Your task to perform on an android device: manage bookmarks in the chrome app Image 0: 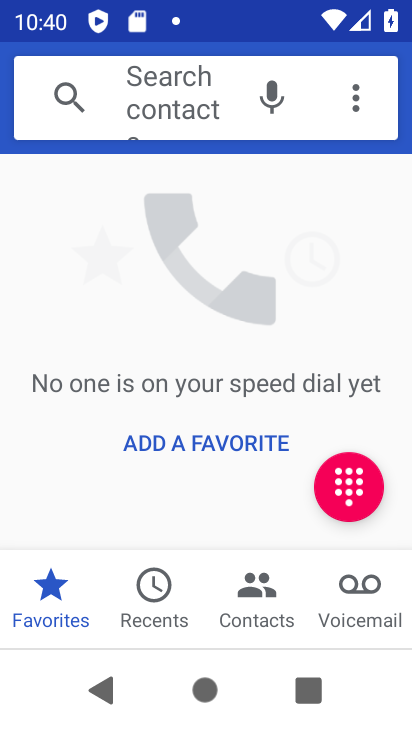
Step 0: press home button
Your task to perform on an android device: manage bookmarks in the chrome app Image 1: 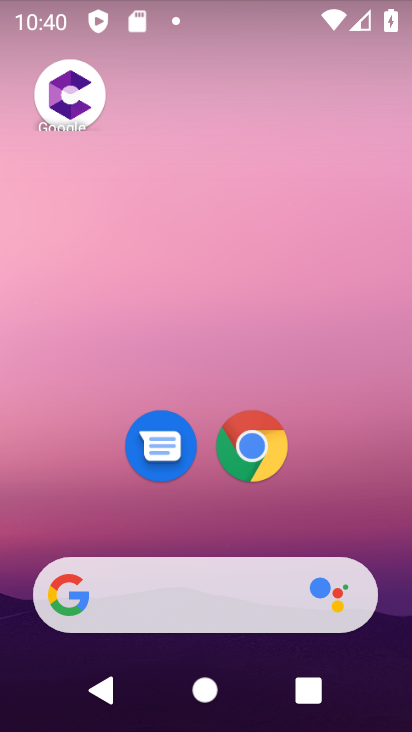
Step 1: click (250, 448)
Your task to perform on an android device: manage bookmarks in the chrome app Image 2: 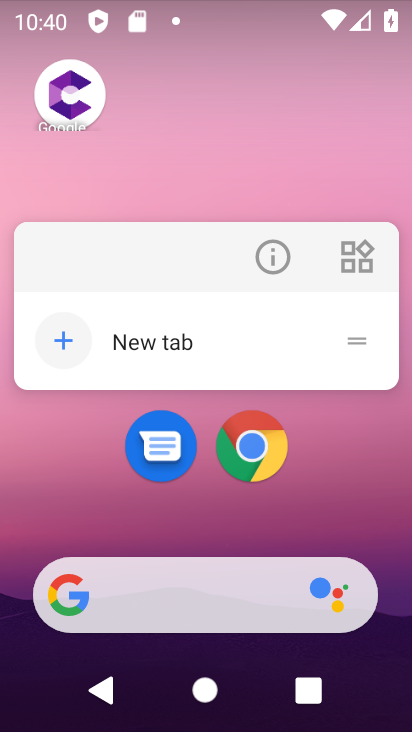
Step 2: click (283, 247)
Your task to perform on an android device: manage bookmarks in the chrome app Image 3: 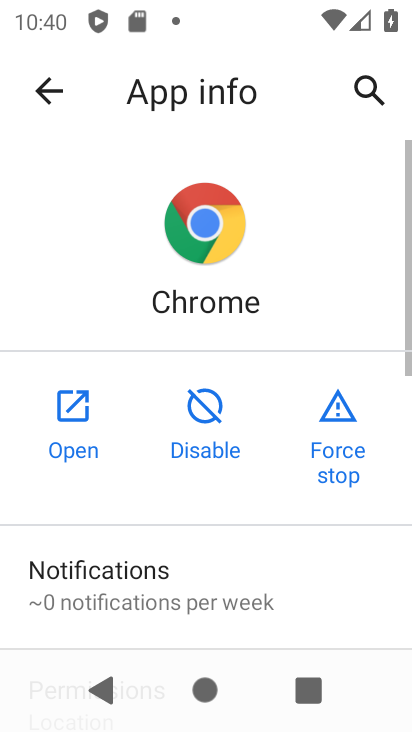
Step 3: click (66, 423)
Your task to perform on an android device: manage bookmarks in the chrome app Image 4: 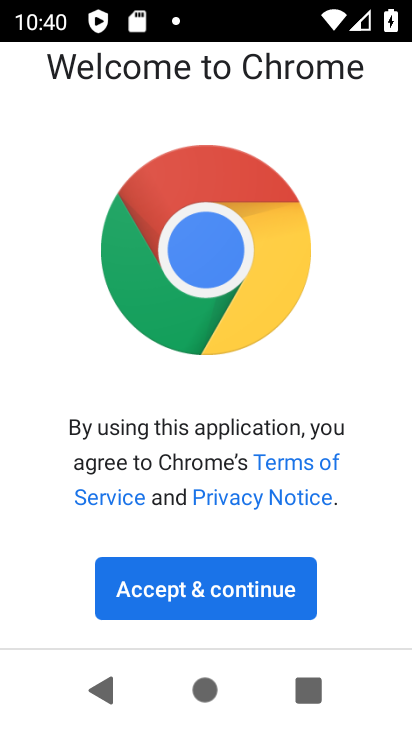
Step 4: click (194, 591)
Your task to perform on an android device: manage bookmarks in the chrome app Image 5: 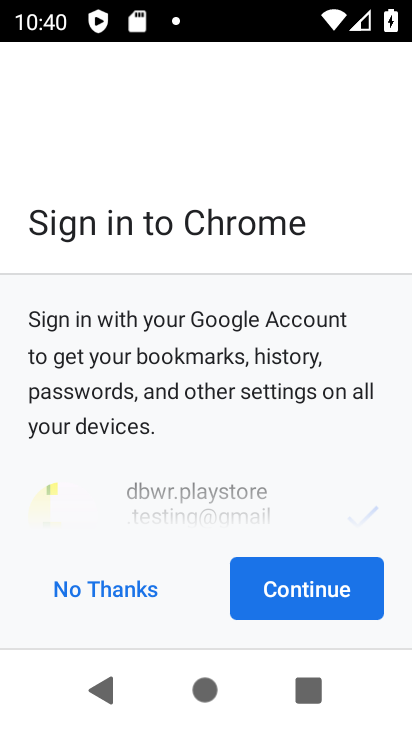
Step 5: click (131, 594)
Your task to perform on an android device: manage bookmarks in the chrome app Image 6: 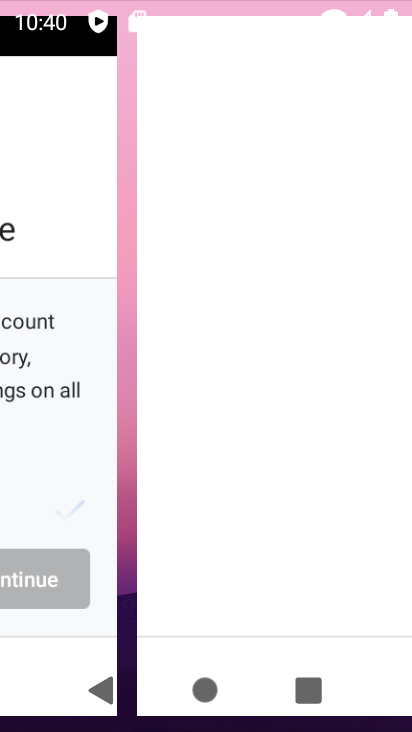
Step 6: click (304, 586)
Your task to perform on an android device: manage bookmarks in the chrome app Image 7: 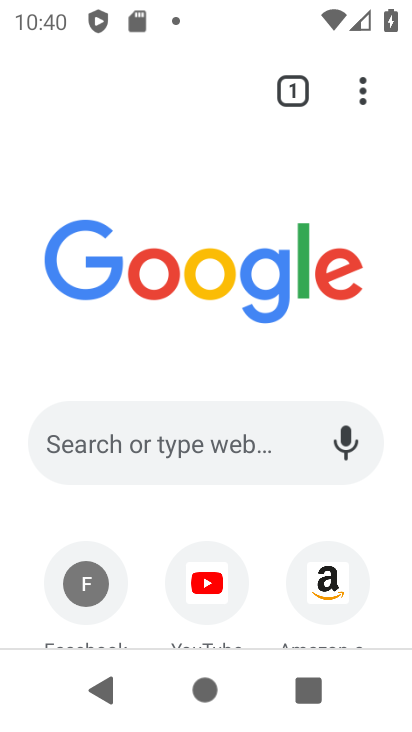
Step 7: drag from (372, 94) to (163, 339)
Your task to perform on an android device: manage bookmarks in the chrome app Image 8: 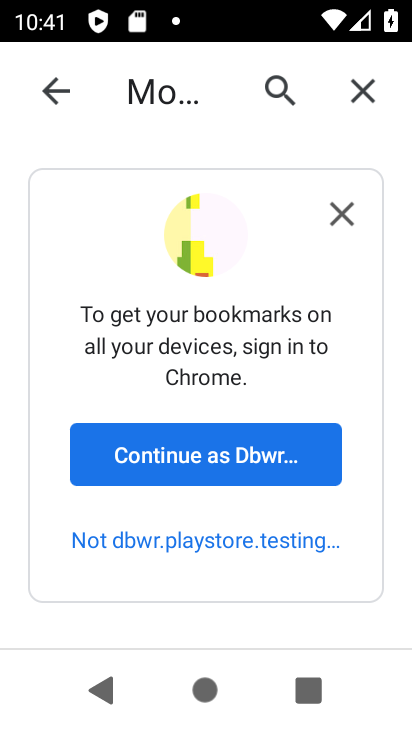
Step 8: drag from (173, 628) to (216, 393)
Your task to perform on an android device: manage bookmarks in the chrome app Image 9: 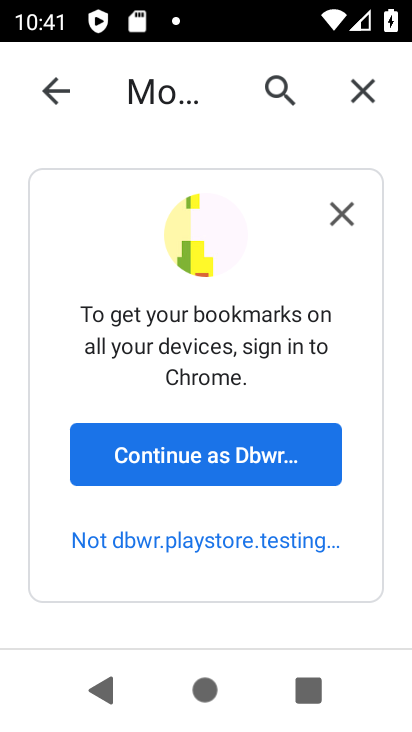
Step 9: drag from (207, 600) to (261, 315)
Your task to perform on an android device: manage bookmarks in the chrome app Image 10: 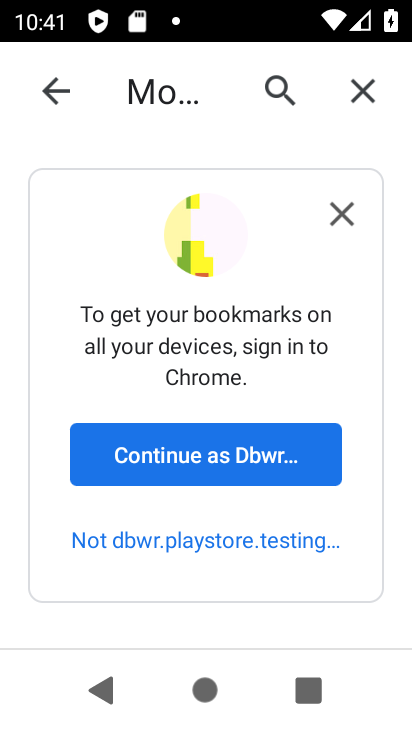
Step 10: click (332, 207)
Your task to perform on an android device: manage bookmarks in the chrome app Image 11: 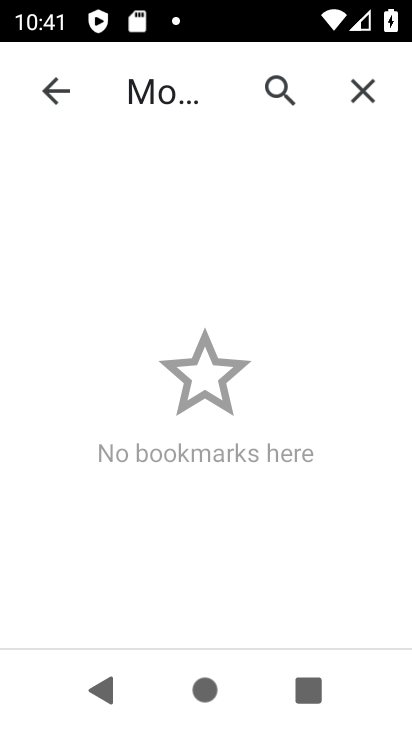
Step 11: drag from (232, 425) to (259, 279)
Your task to perform on an android device: manage bookmarks in the chrome app Image 12: 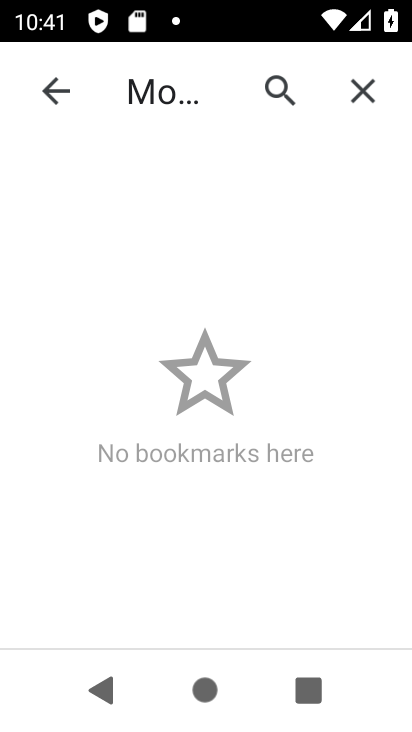
Step 12: drag from (248, 419) to (270, 256)
Your task to perform on an android device: manage bookmarks in the chrome app Image 13: 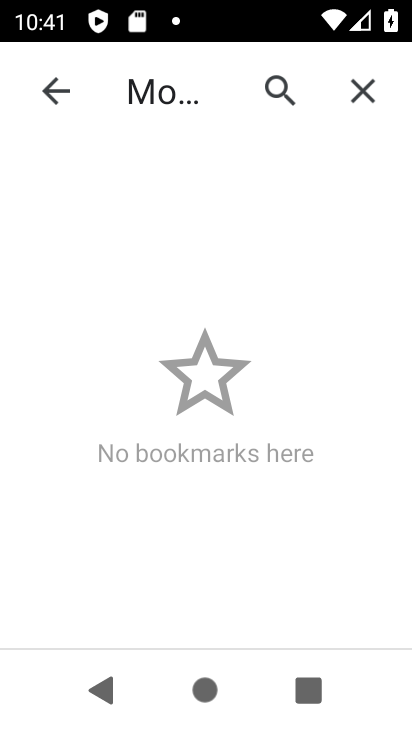
Step 13: drag from (239, 514) to (269, 293)
Your task to perform on an android device: manage bookmarks in the chrome app Image 14: 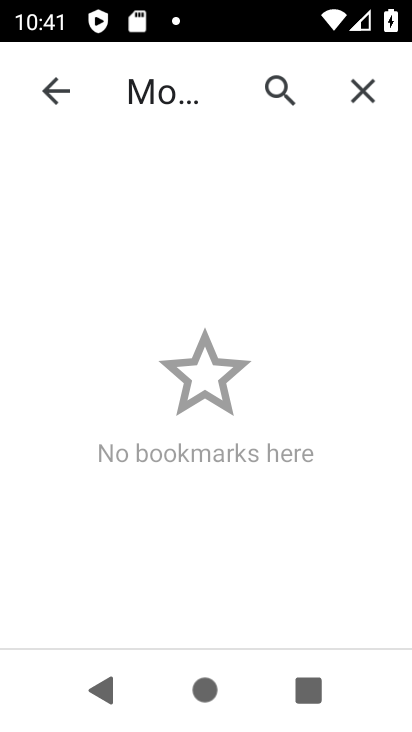
Step 14: drag from (225, 519) to (280, 263)
Your task to perform on an android device: manage bookmarks in the chrome app Image 15: 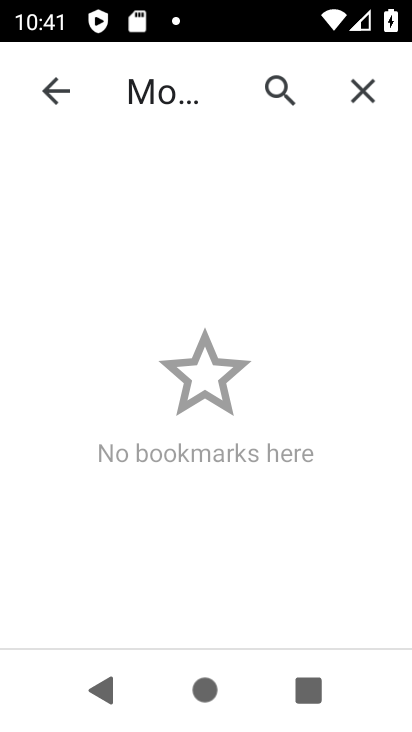
Step 15: drag from (266, 322) to (271, 273)
Your task to perform on an android device: manage bookmarks in the chrome app Image 16: 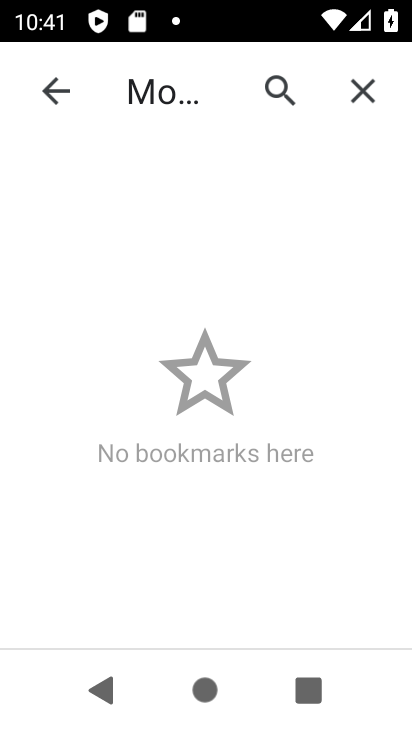
Step 16: drag from (204, 569) to (241, 384)
Your task to perform on an android device: manage bookmarks in the chrome app Image 17: 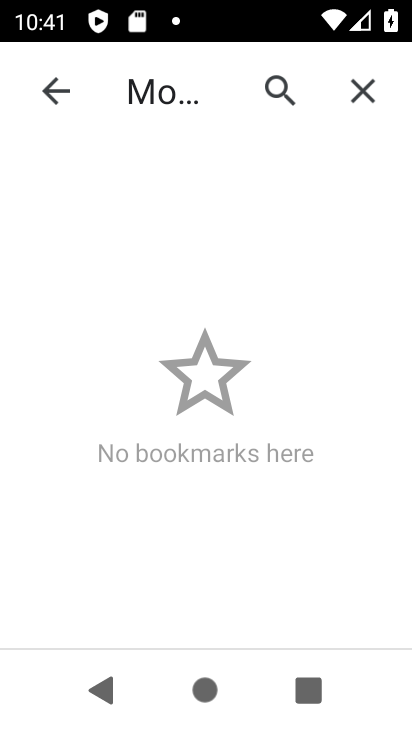
Step 17: drag from (204, 502) to (207, 355)
Your task to perform on an android device: manage bookmarks in the chrome app Image 18: 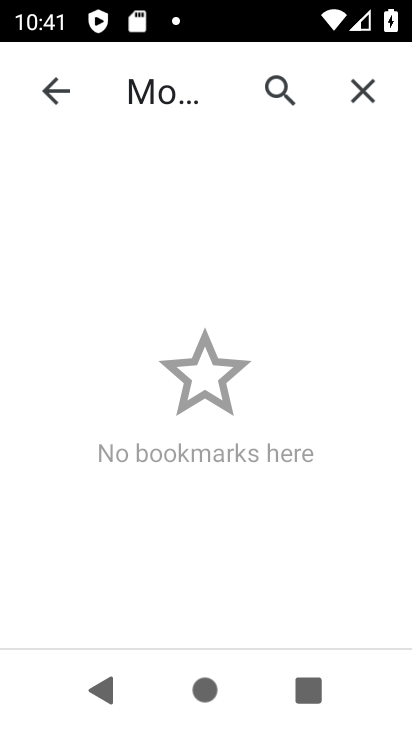
Step 18: click (255, 364)
Your task to perform on an android device: manage bookmarks in the chrome app Image 19: 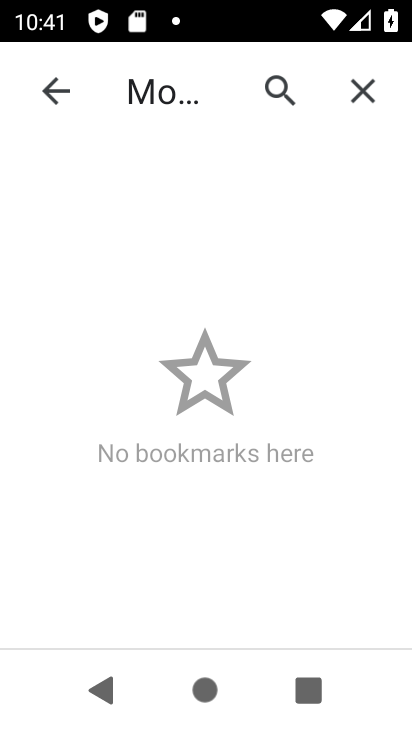
Step 19: task complete